Your task to perform on an android device: clear history in the chrome app Image 0: 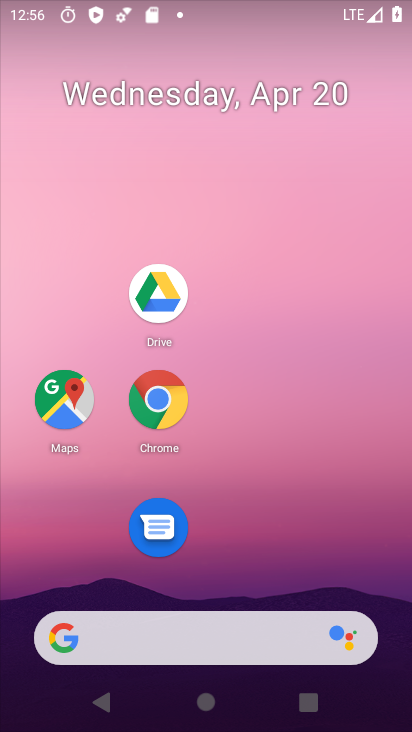
Step 0: drag from (282, 657) to (238, 189)
Your task to perform on an android device: clear history in the chrome app Image 1: 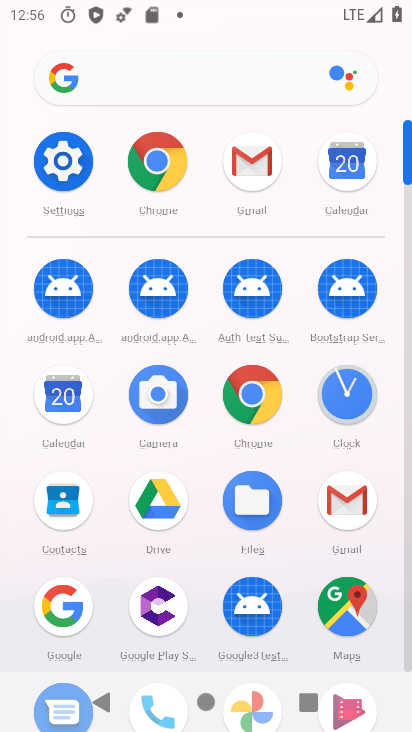
Step 1: click (137, 174)
Your task to perform on an android device: clear history in the chrome app Image 2: 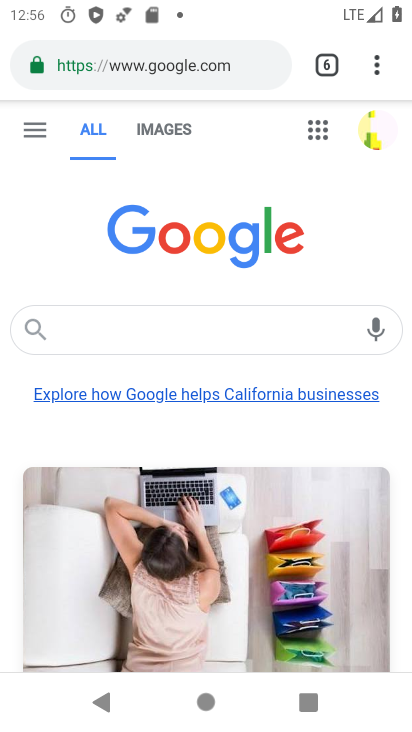
Step 2: click (368, 68)
Your task to perform on an android device: clear history in the chrome app Image 3: 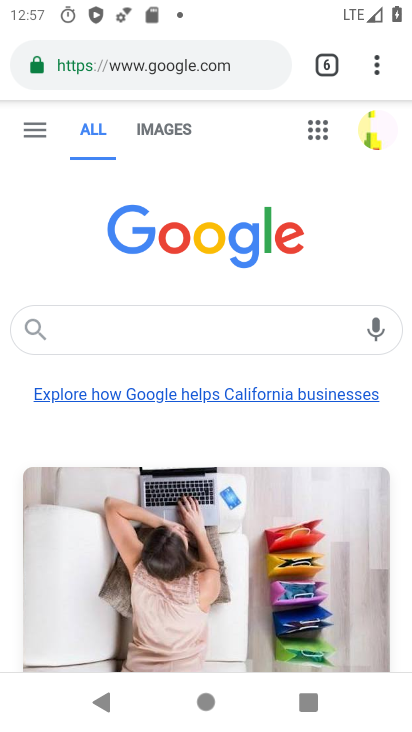
Step 3: drag from (376, 66) to (187, 342)
Your task to perform on an android device: clear history in the chrome app Image 4: 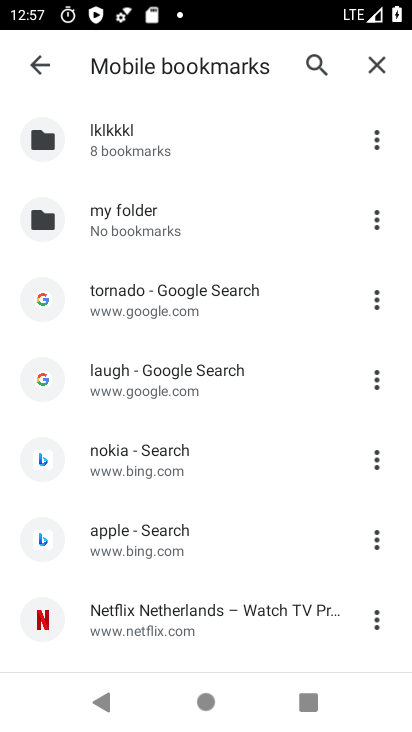
Step 4: click (377, 64)
Your task to perform on an android device: clear history in the chrome app Image 5: 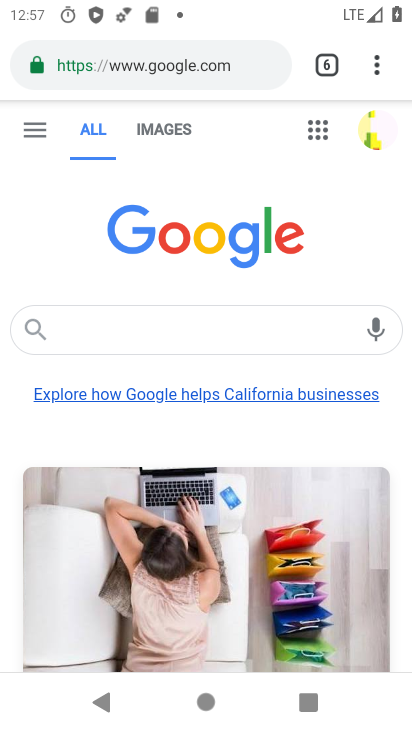
Step 5: click (376, 68)
Your task to perform on an android device: clear history in the chrome app Image 6: 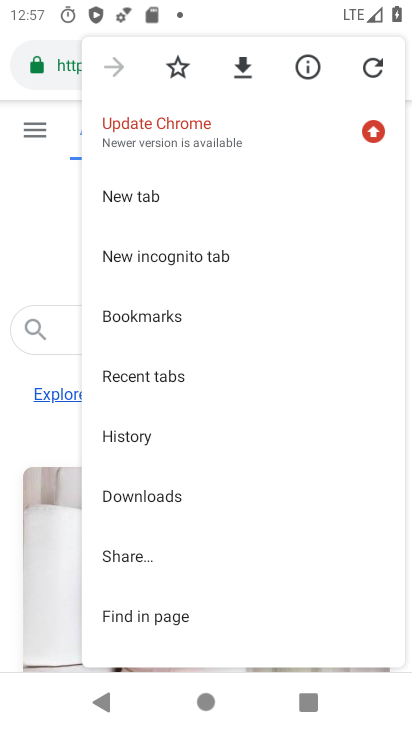
Step 6: drag from (164, 320) to (147, 431)
Your task to perform on an android device: clear history in the chrome app Image 7: 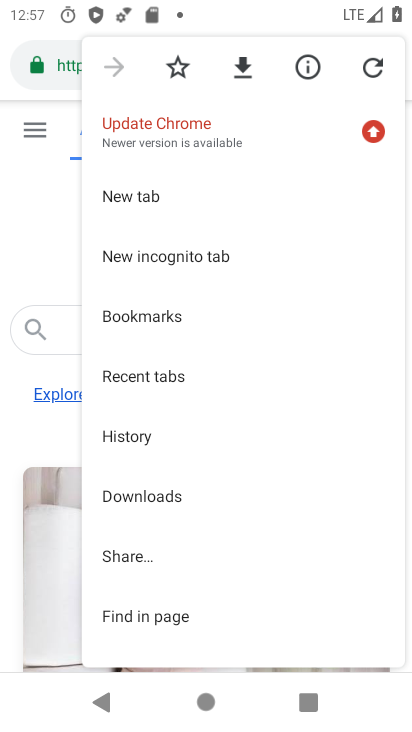
Step 7: click (147, 431)
Your task to perform on an android device: clear history in the chrome app Image 8: 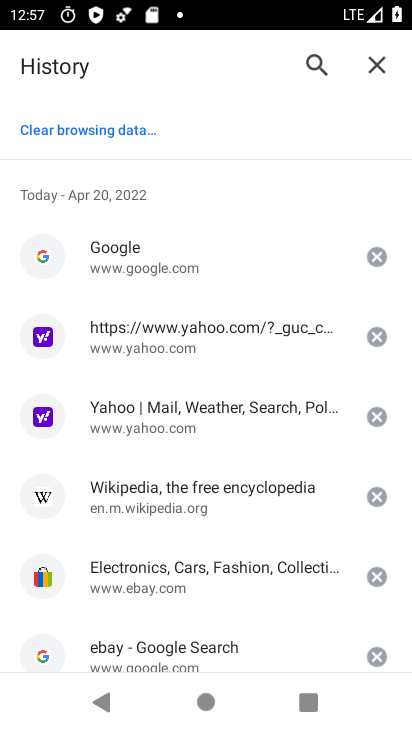
Step 8: click (120, 126)
Your task to perform on an android device: clear history in the chrome app Image 9: 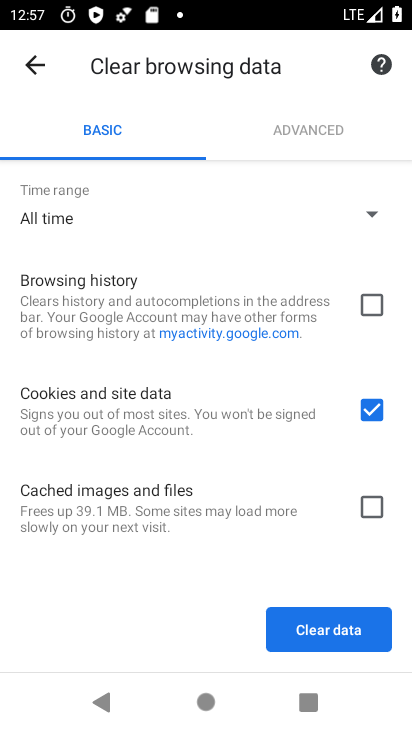
Step 9: click (365, 310)
Your task to perform on an android device: clear history in the chrome app Image 10: 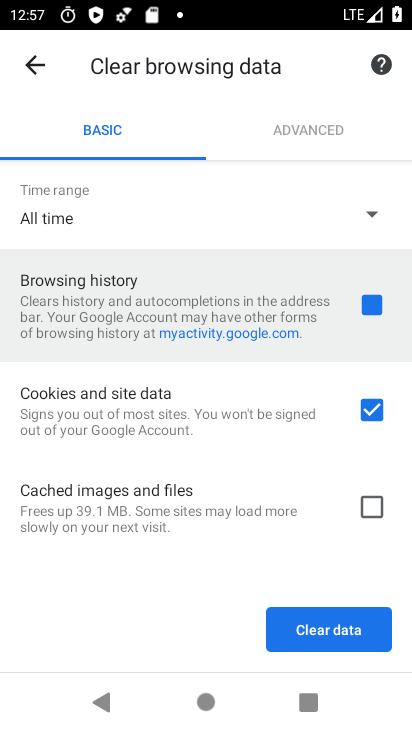
Step 10: click (379, 418)
Your task to perform on an android device: clear history in the chrome app Image 11: 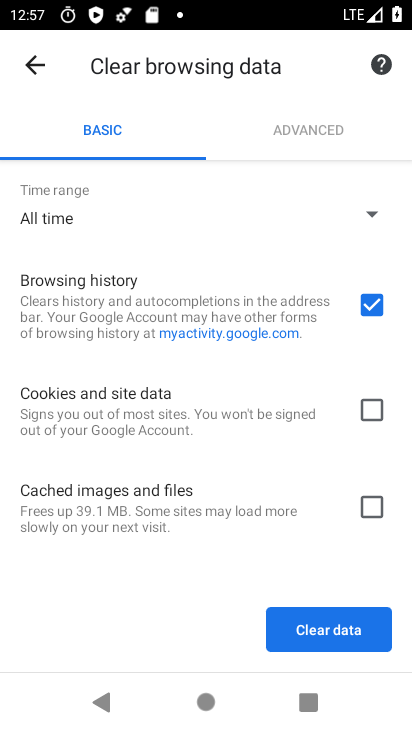
Step 11: click (355, 628)
Your task to perform on an android device: clear history in the chrome app Image 12: 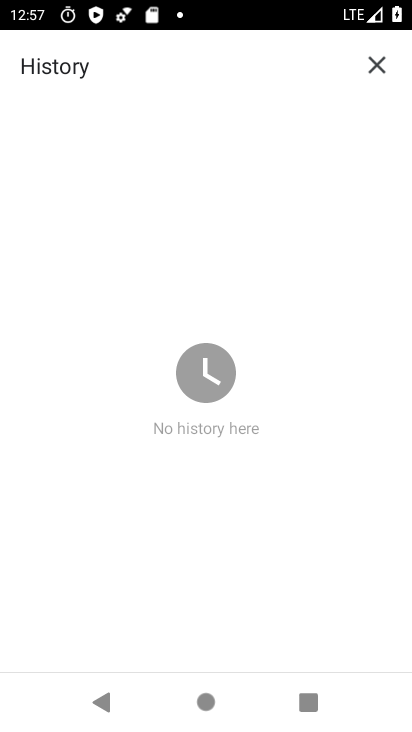
Step 12: task complete